Your task to perform on an android device: find photos in the google photos app Image 0: 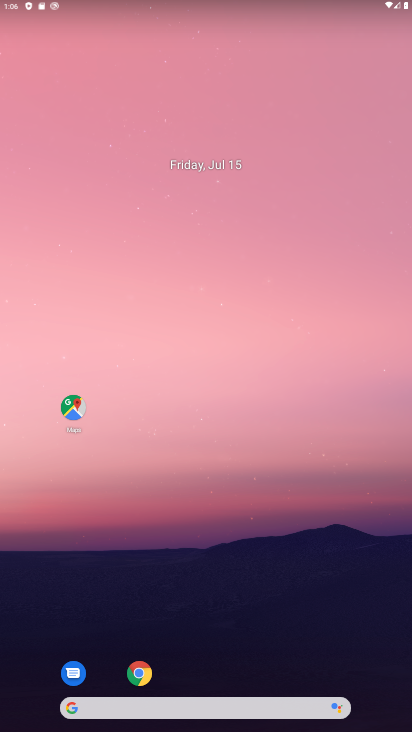
Step 0: drag from (214, 641) to (86, 69)
Your task to perform on an android device: find photos in the google photos app Image 1: 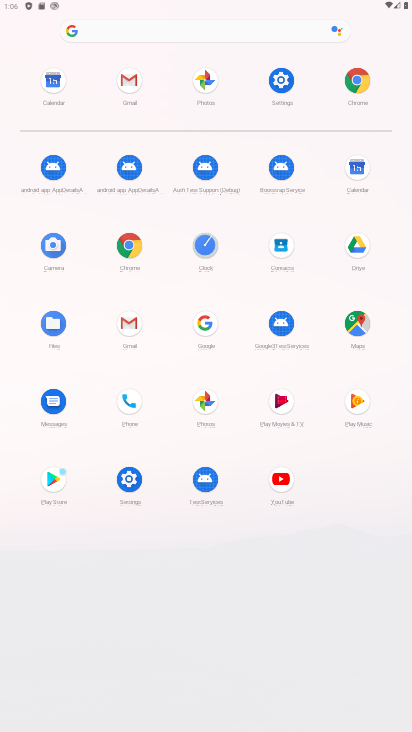
Step 1: click (195, 402)
Your task to perform on an android device: find photos in the google photos app Image 2: 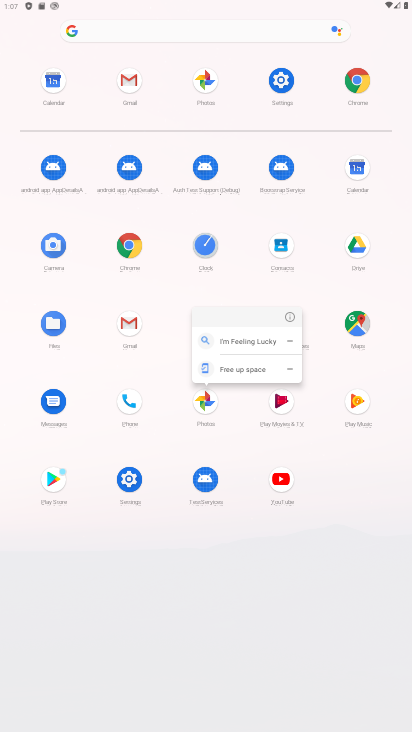
Step 2: click (199, 402)
Your task to perform on an android device: find photos in the google photos app Image 3: 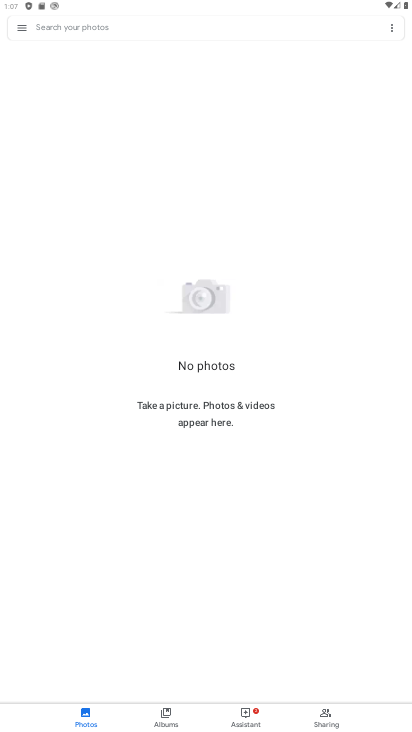
Step 3: task complete